Your task to perform on an android device: Show me productivity apps on the Play Store Image 0: 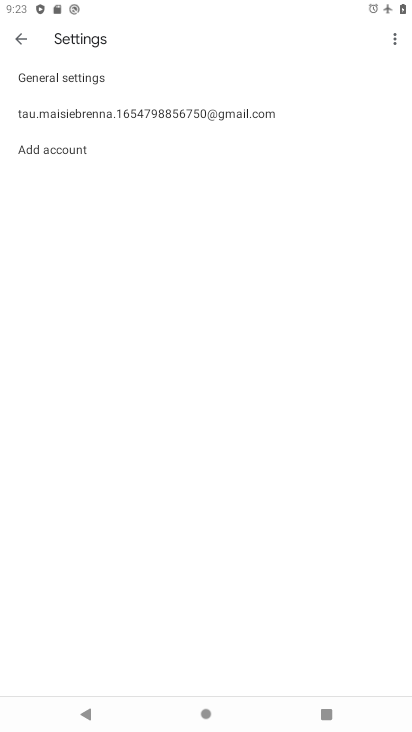
Step 0: press home button
Your task to perform on an android device: Show me productivity apps on the Play Store Image 1: 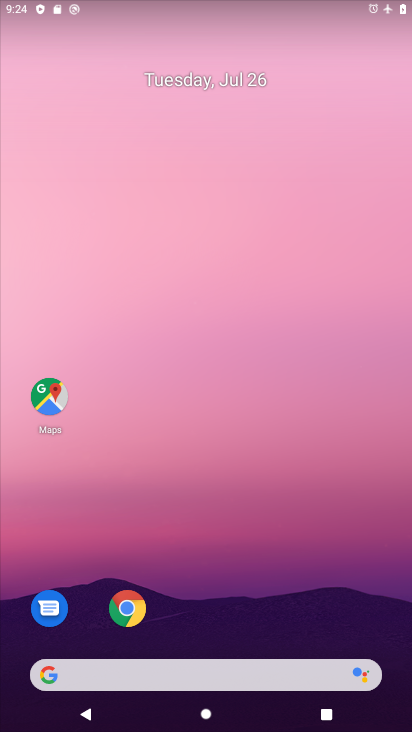
Step 1: drag from (226, 702) to (226, 103)
Your task to perform on an android device: Show me productivity apps on the Play Store Image 2: 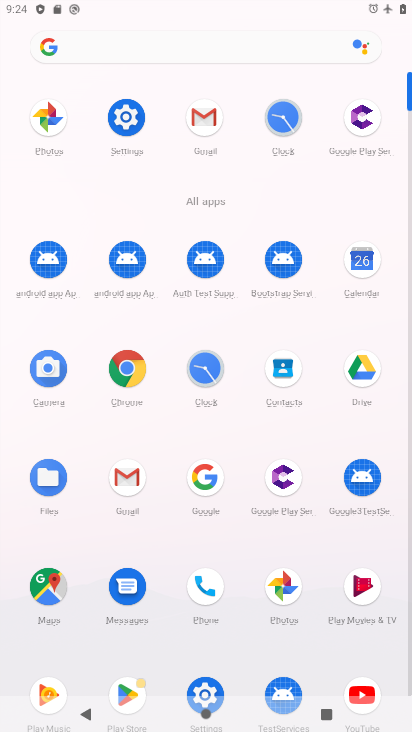
Step 2: click (124, 683)
Your task to perform on an android device: Show me productivity apps on the Play Store Image 3: 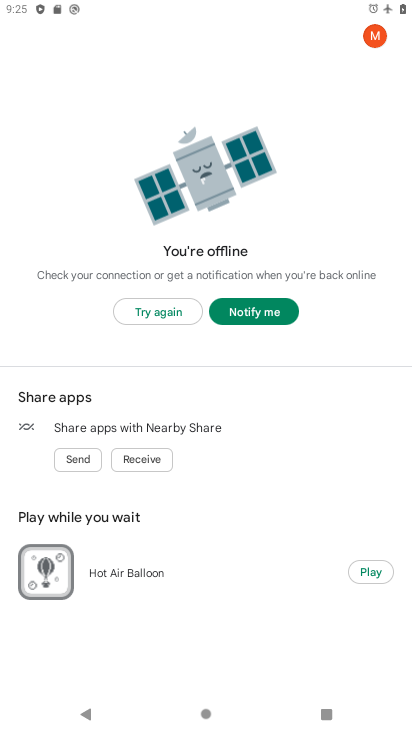
Step 3: task complete